Your task to perform on an android device: turn off javascript in the chrome app Image 0: 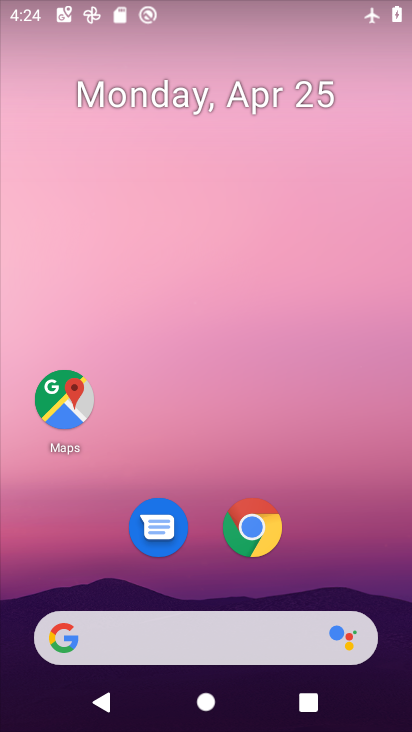
Step 0: click (250, 524)
Your task to perform on an android device: turn off javascript in the chrome app Image 1: 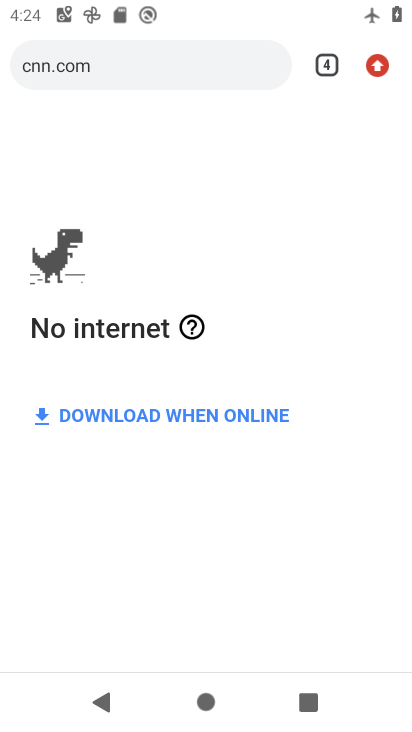
Step 1: click (373, 68)
Your task to perform on an android device: turn off javascript in the chrome app Image 2: 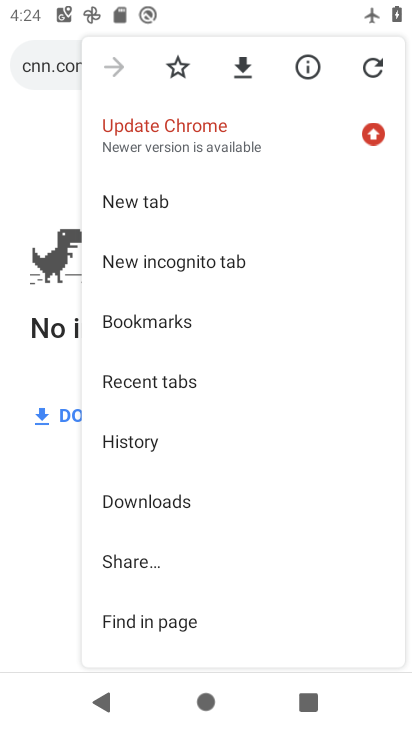
Step 2: drag from (230, 624) to (254, 141)
Your task to perform on an android device: turn off javascript in the chrome app Image 3: 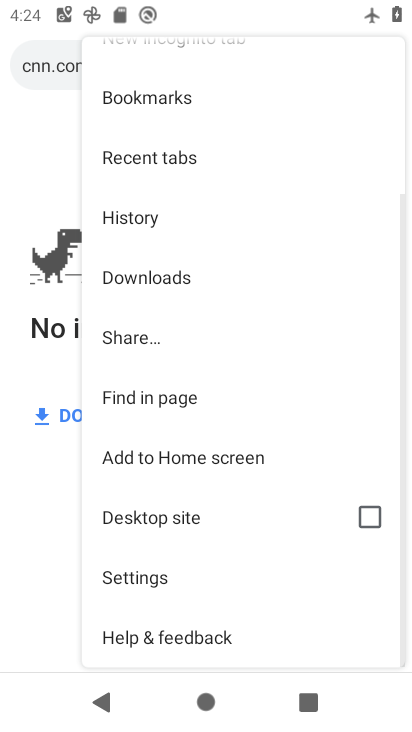
Step 3: click (132, 584)
Your task to perform on an android device: turn off javascript in the chrome app Image 4: 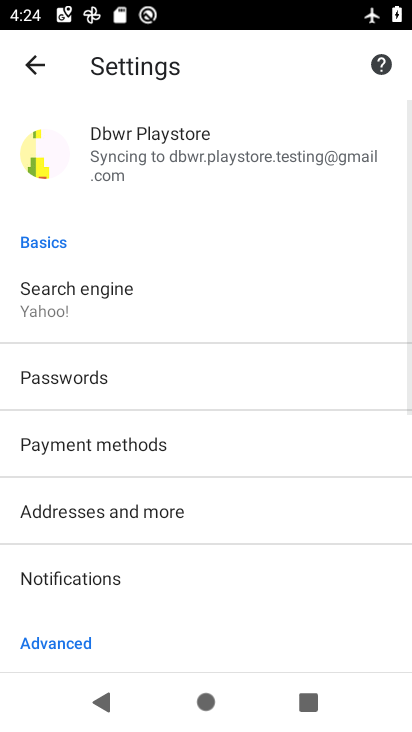
Step 4: drag from (221, 602) to (242, 202)
Your task to perform on an android device: turn off javascript in the chrome app Image 5: 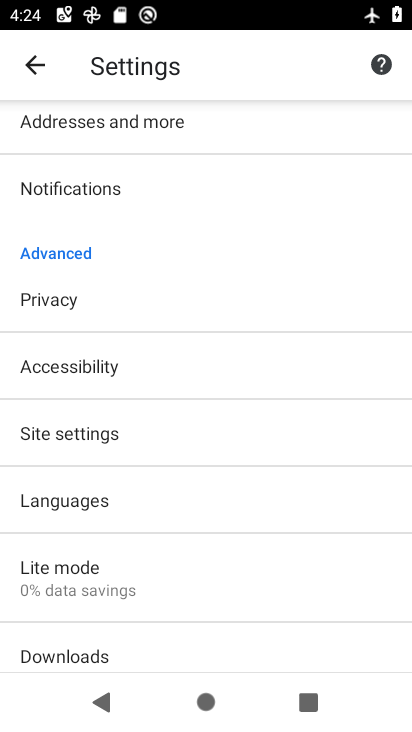
Step 5: click (96, 436)
Your task to perform on an android device: turn off javascript in the chrome app Image 6: 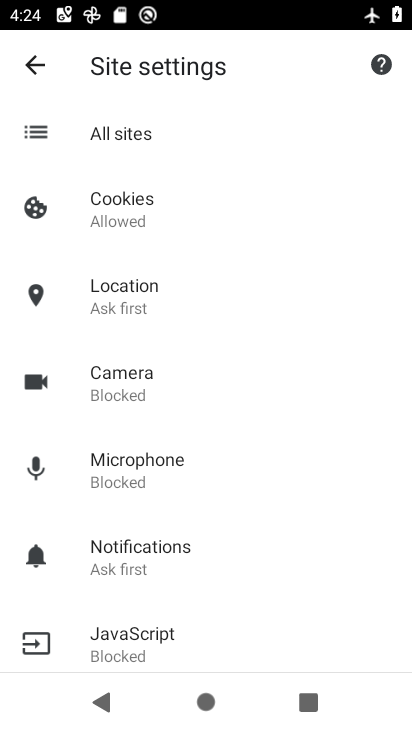
Step 6: drag from (219, 607) to (232, 242)
Your task to perform on an android device: turn off javascript in the chrome app Image 7: 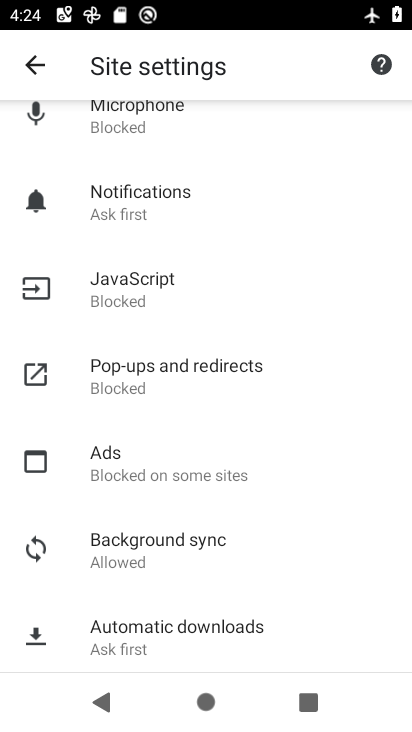
Step 7: click (99, 298)
Your task to perform on an android device: turn off javascript in the chrome app Image 8: 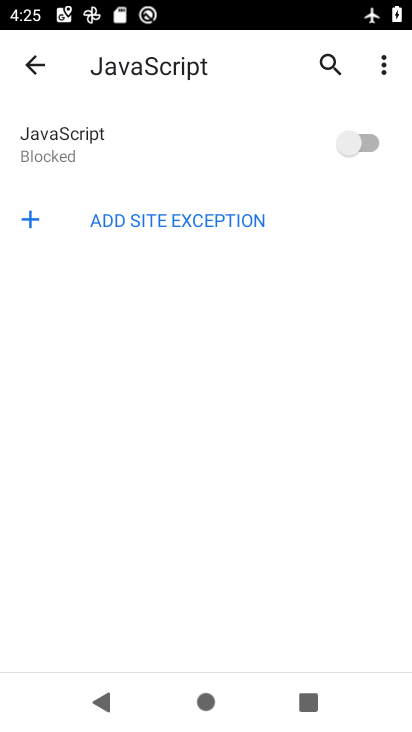
Step 8: task complete